Your task to perform on an android device: Go to Maps Image 0: 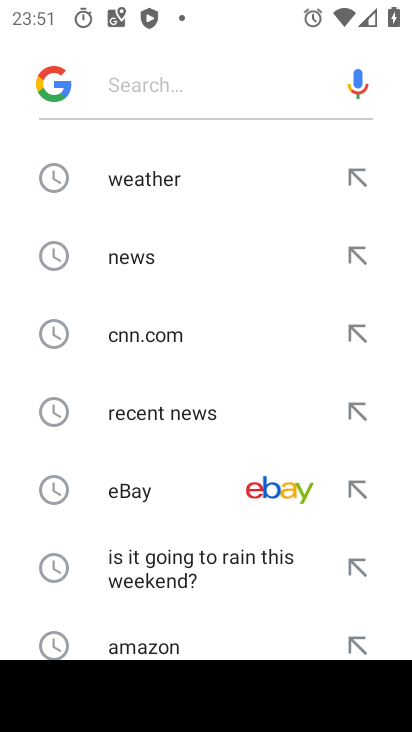
Step 0: press home button
Your task to perform on an android device: Go to Maps Image 1: 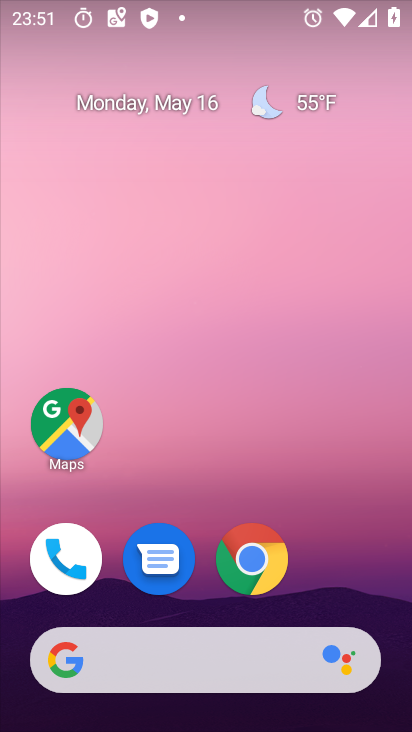
Step 1: click (80, 435)
Your task to perform on an android device: Go to Maps Image 2: 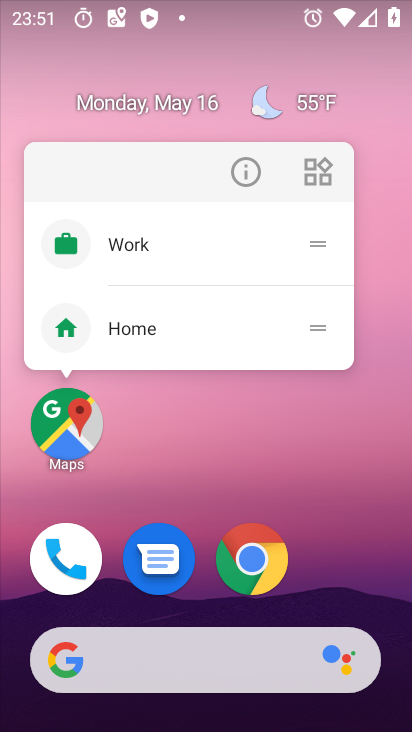
Step 2: click (69, 416)
Your task to perform on an android device: Go to Maps Image 3: 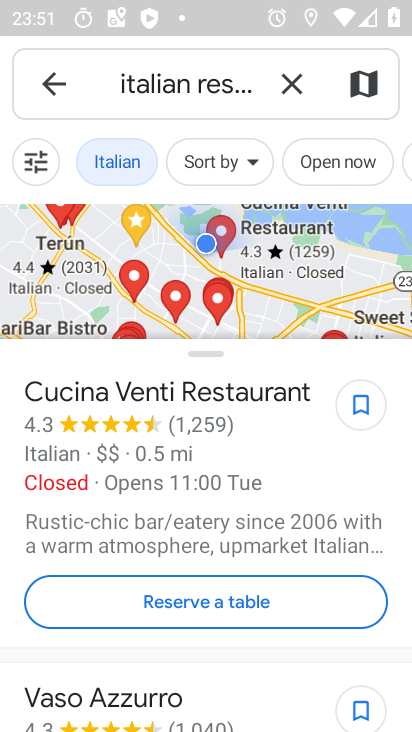
Step 3: task complete